Your task to perform on an android device: turn off wifi Image 0: 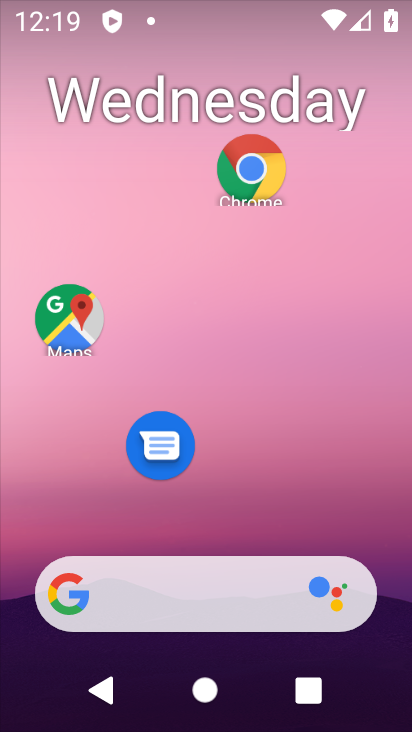
Step 0: drag from (226, 537) to (362, 1)
Your task to perform on an android device: turn off wifi Image 1: 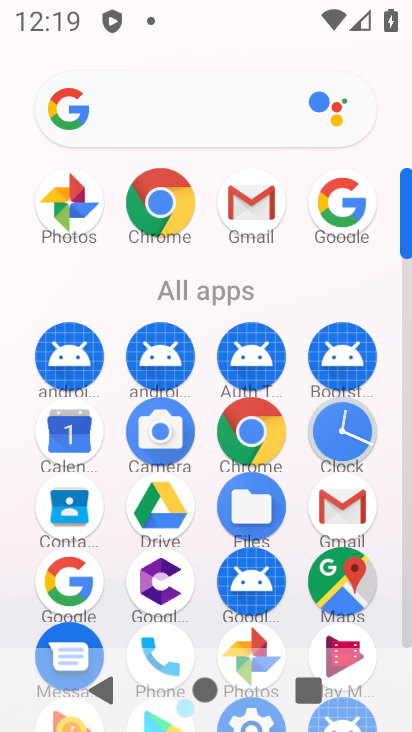
Step 1: drag from (252, 618) to (321, 253)
Your task to perform on an android device: turn off wifi Image 2: 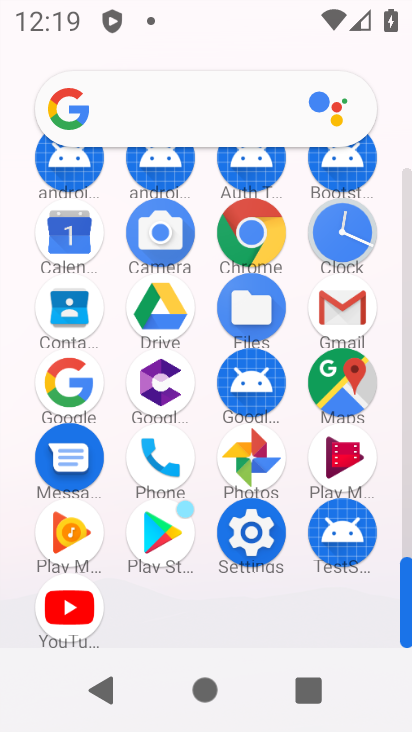
Step 2: click (245, 528)
Your task to perform on an android device: turn off wifi Image 3: 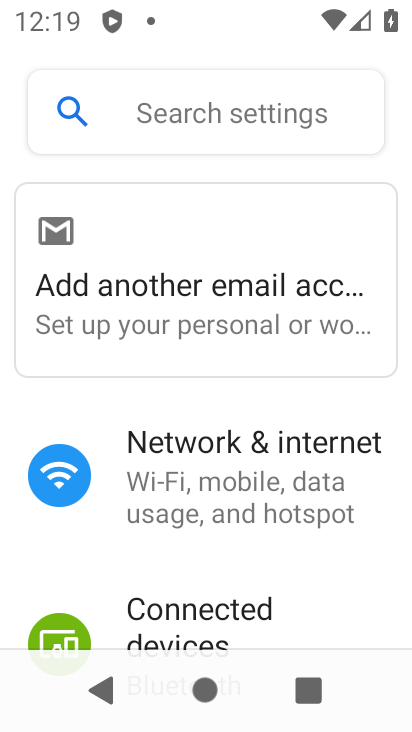
Step 3: drag from (241, 525) to (294, 164)
Your task to perform on an android device: turn off wifi Image 4: 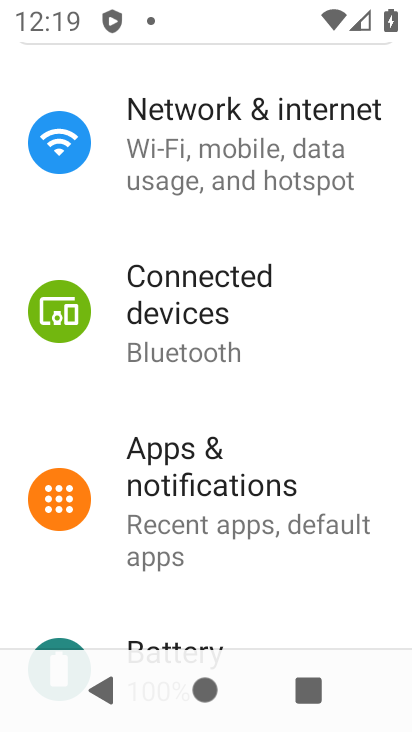
Step 4: drag from (183, 582) to (234, 242)
Your task to perform on an android device: turn off wifi Image 5: 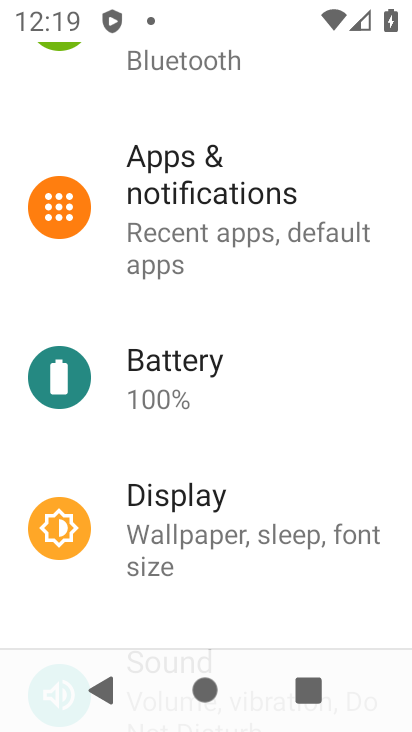
Step 5: drag from (223, 235) to (218, 401)
Your task to perform on an android device: turn off wifi Image 6: 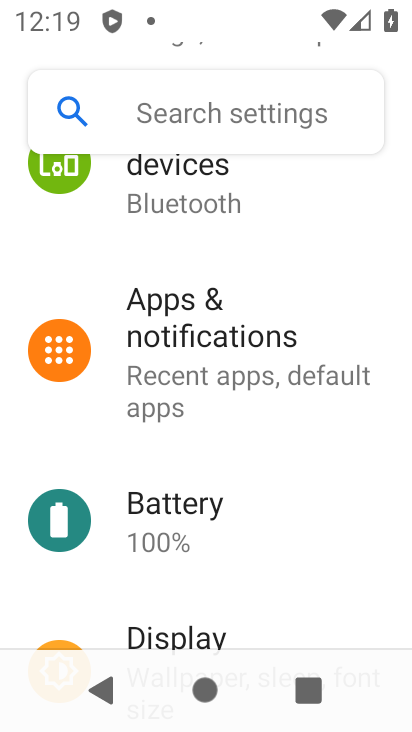
Step 6: drag from (227, 571) to (334, 171)
Your task to perform on an android device: turn off wifi Image 7: 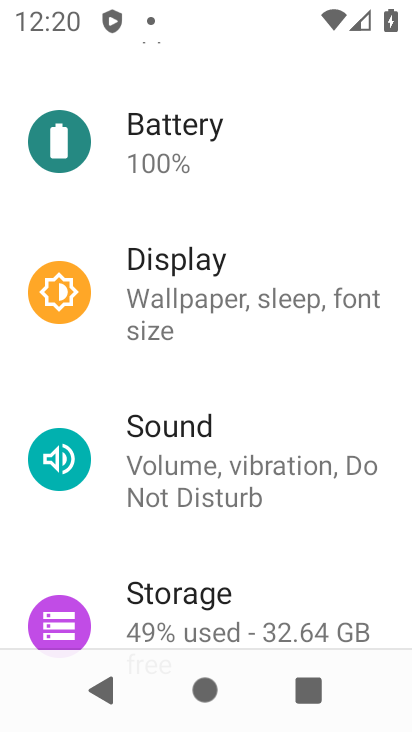
Step 7: drag from (237, 221) to (197, 541)
Your task to perform on an android device: turn off wifi Image 8: 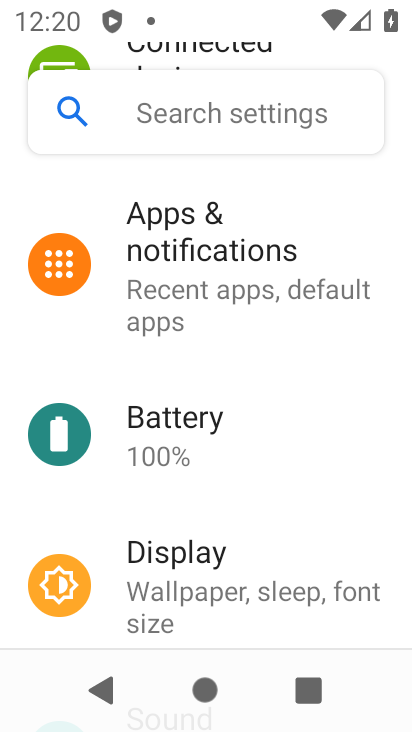
Step 8: drag from (230, 257) to (187, 522)
Your task to perform on an android device: turn off wifi Image 9: 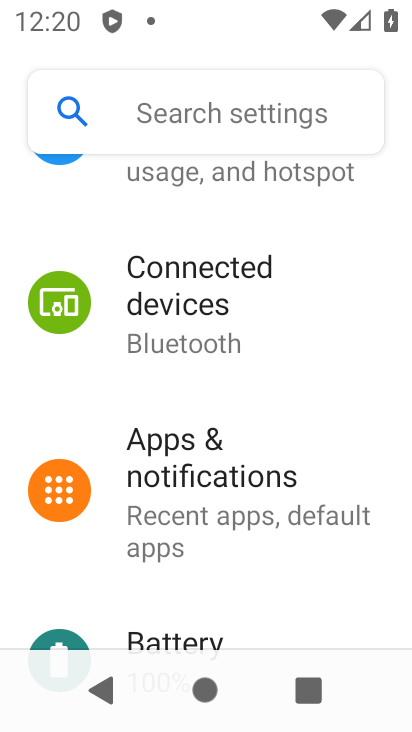
Step 9: drag from (210, 307) to (180, 591)
Your task to perform on an android device: turn off wifi Image 10: 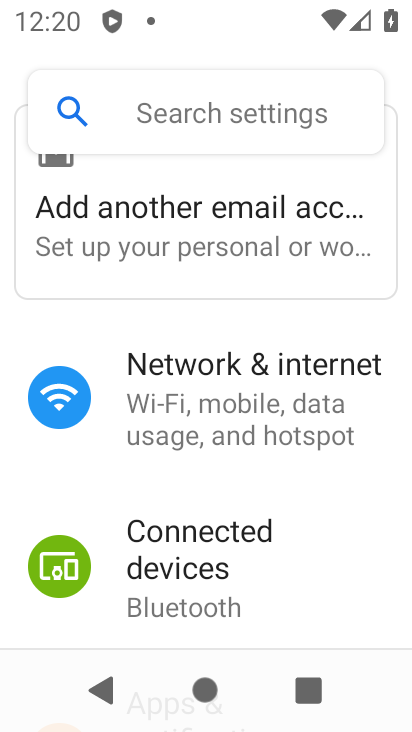
Step 10: click (202, 390)
Your task to perform on an android device: turn off wifi Image 11: 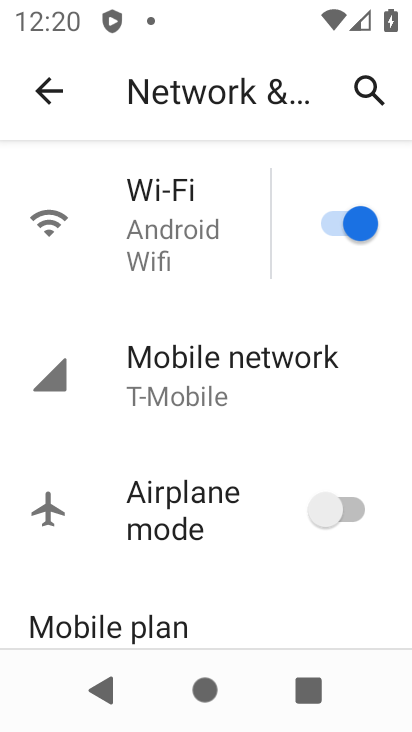
Step 11: click (330, 229)
Your task to perform on an android device: turn off wifi Image 12: 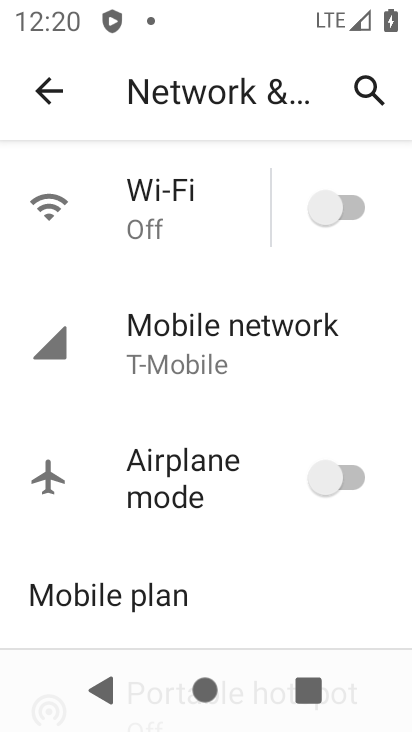
Step 12: task complete